Your task to perform on an android device: show emergency info Image 0: 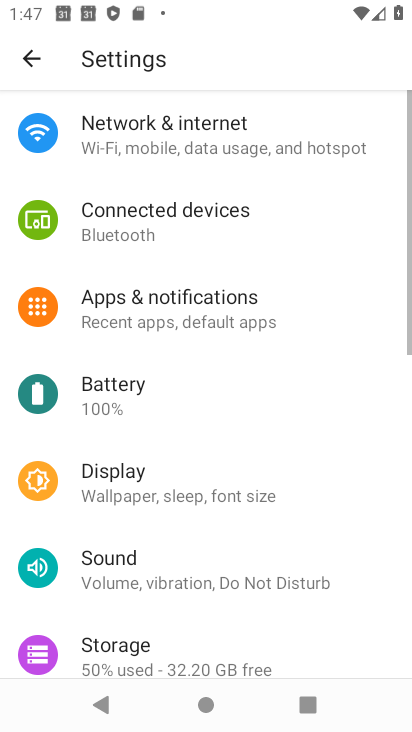
Step 0: drag from (234, 677) to (335, 100)
Your task to perform on an android device: show emergency info Image 1: 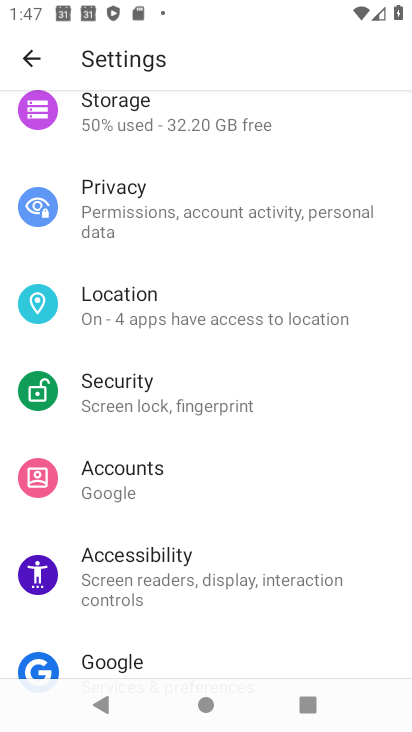
Step 1: drag from (191, 579) to (259, 9)
Your task to perform on an android device: show emergency info Image 2: 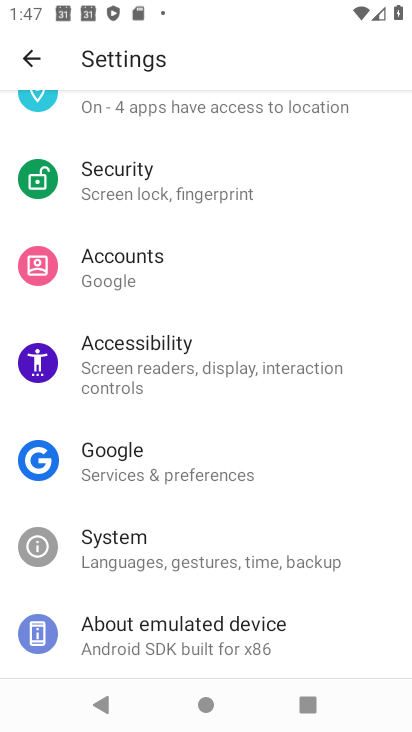
Step 2: drag from (225, 605) to (283, 213)
Your task to perform on an android device: show emergency info Image 3: 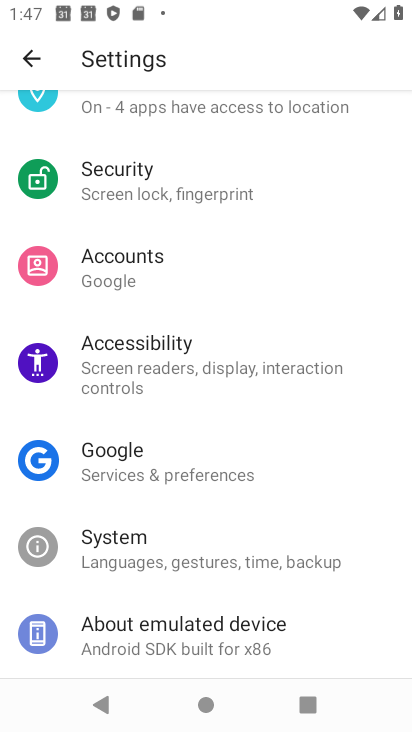
Step 3: click (195, 633)
Your task to perform on an android device: show emergency info Image 4: 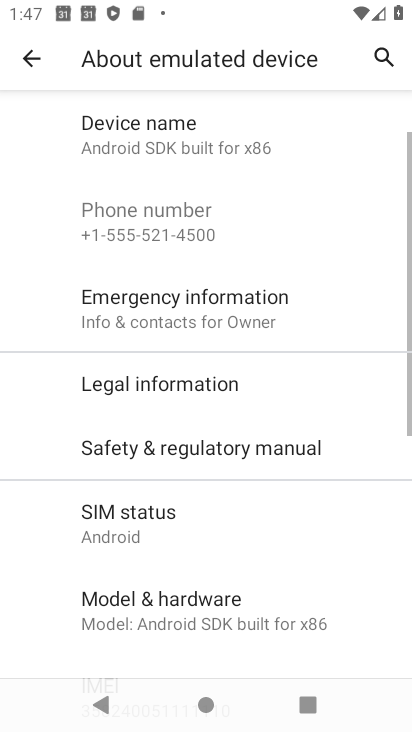
Step 4: drag from (239, 547) to (298, 165)
Your task to perform on an android device: show emergency info Image 5: 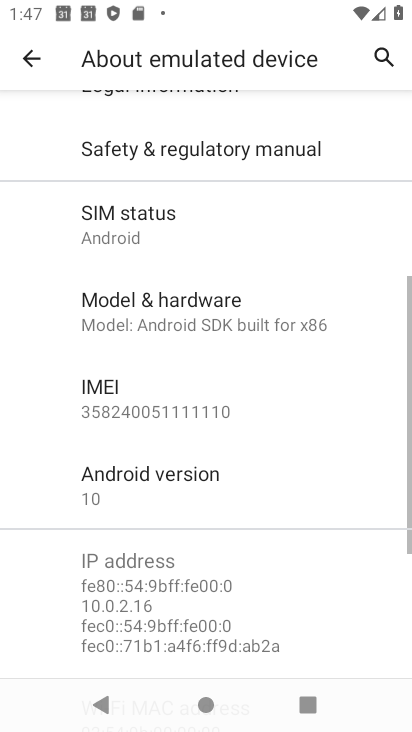
Step 5: drag from (247, 244) to (322, 727)
Your task to perform on an android device: show emergency info Image 6: 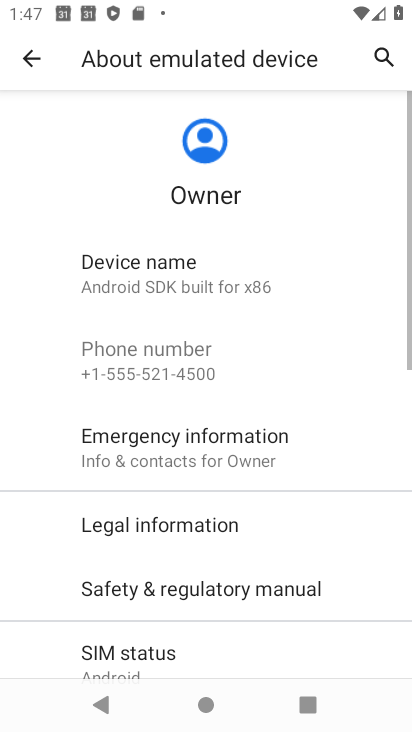
Step 6: click (206, 445)
Your task to perform on an android device: show emergency info Image 7: 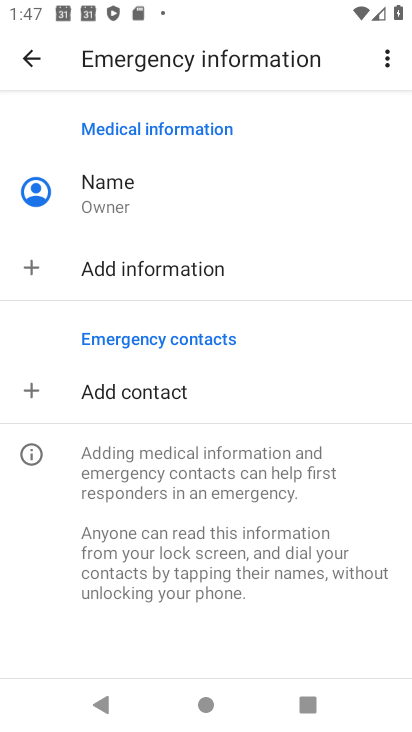
Step 7: task complete